Your task to perform on an android device: Go to settings Image 0: 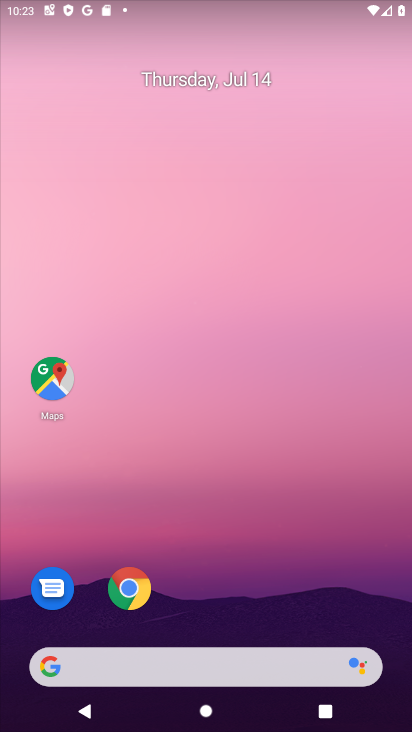
Step 0: drag from (169, 630) to (309, 95)
Your task to perform on an android device: Go to settings Image 1: 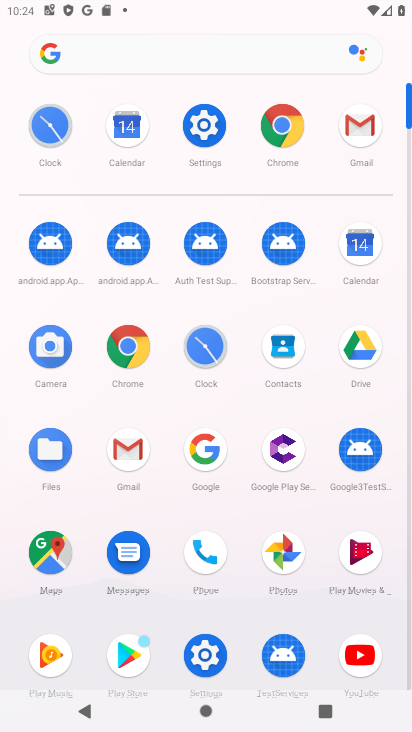
Step 1: click (202, 138)
Your task to perform on an android device: Go to settings Image 2: 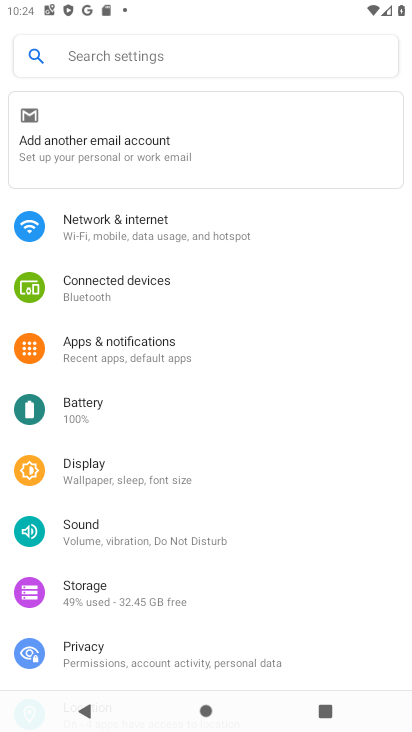
Step 2: task complete